Your task to perform on an android device: open chrome and create a bookmark for the current page Image 0: 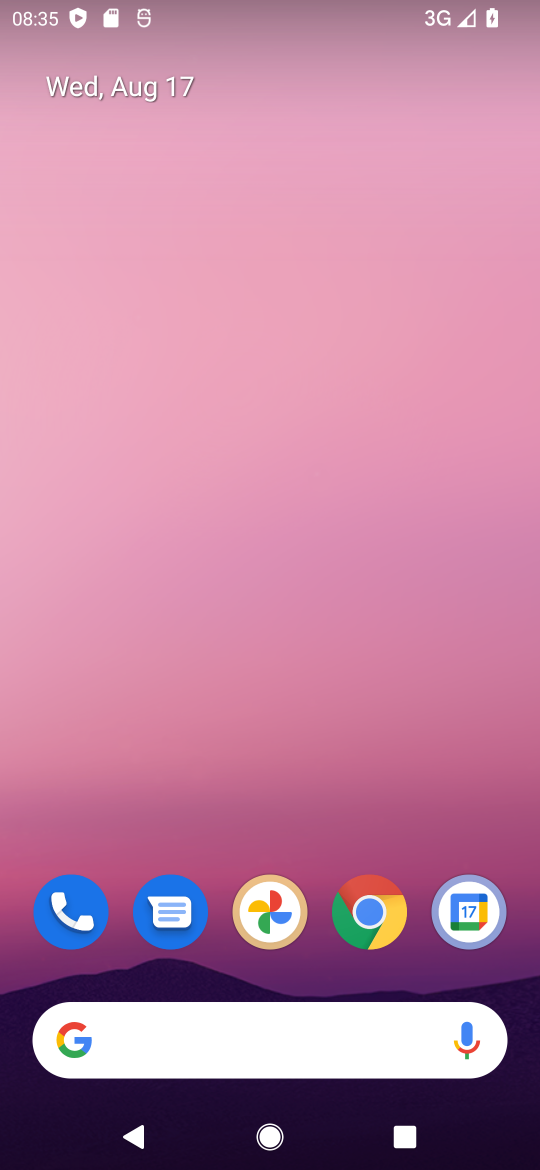
Step 0: click (353, 927)
Your task to perform on an android device: open chrome and create a bookmark for the current page Image 1: 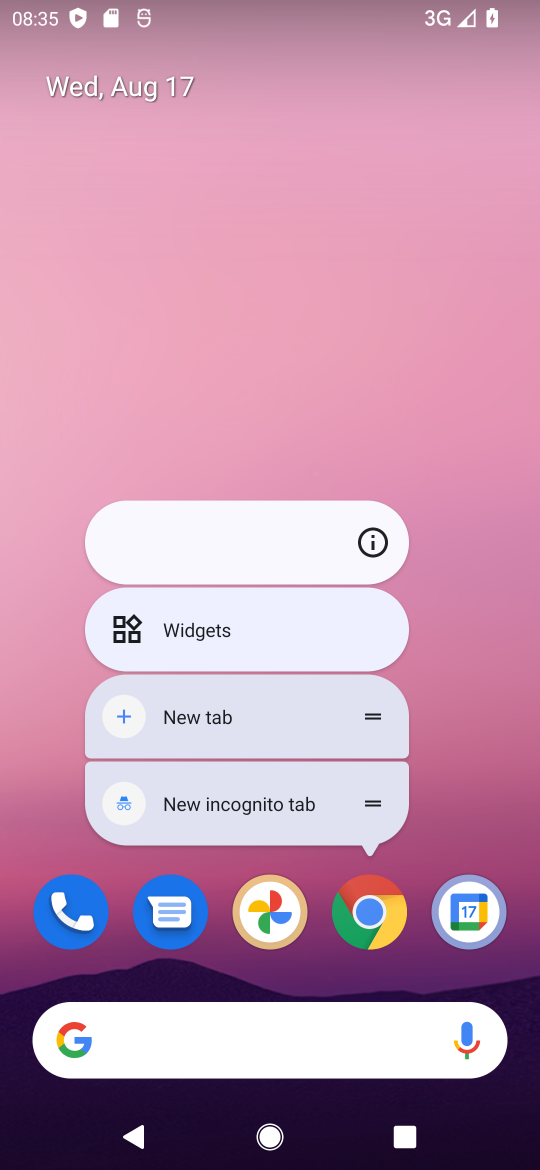
Step 1: click (378, 900)
Your task to perform on an android device: open chrome and create a bookmark for the current page Image 2: 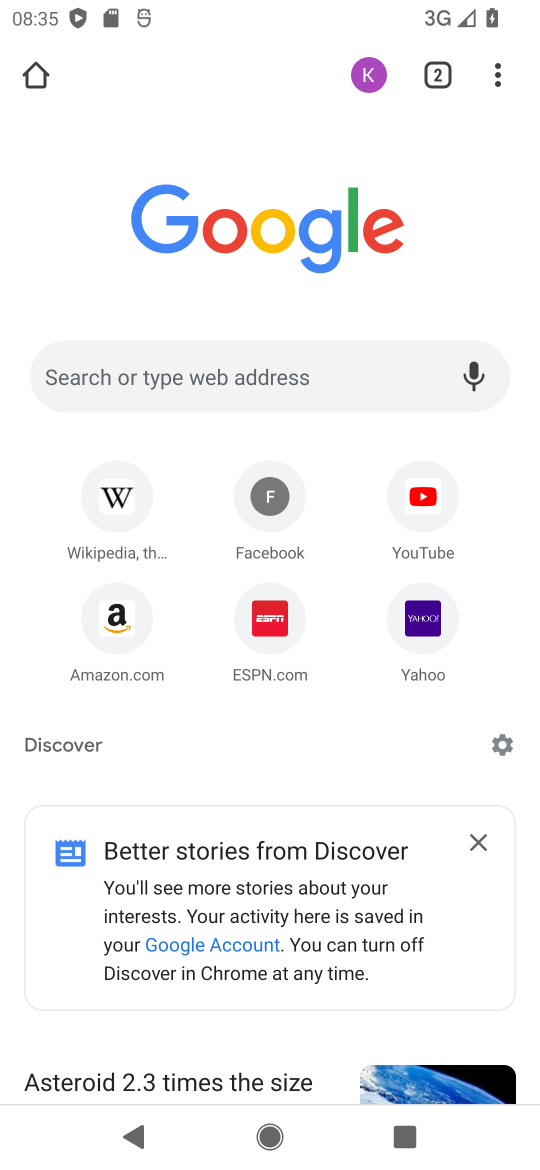
Step 2: click (493, 76)
Your task to perform on an android device: open chrome and create a bookmark for the current page Image 3: 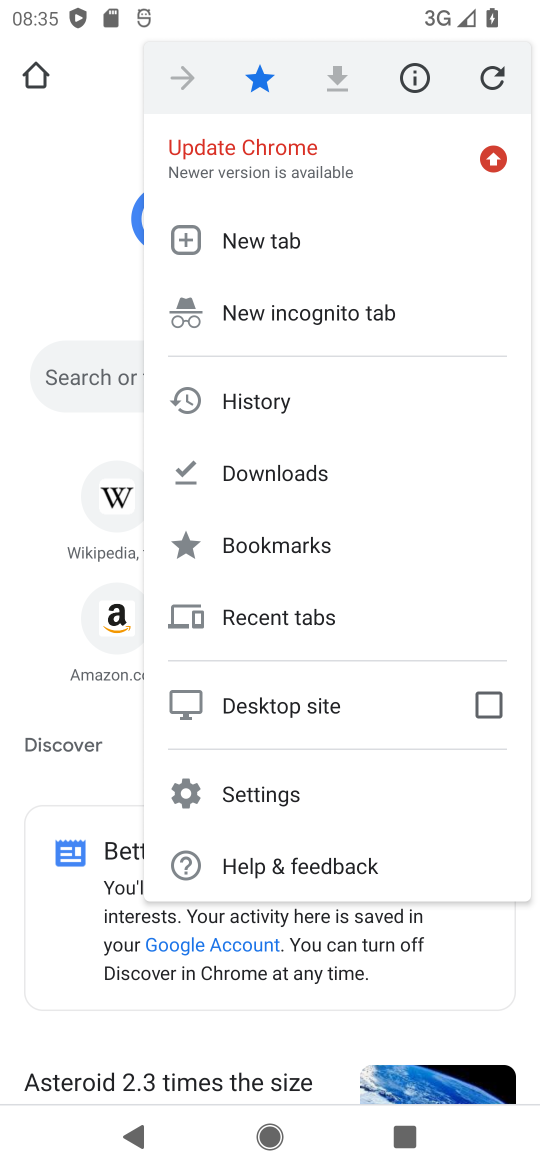
Step 3: task complete